Your task to perform on an android device: Go to Google maps Image 0: 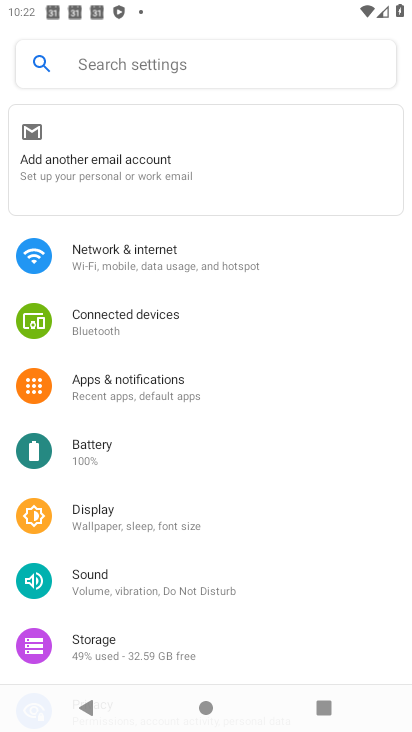
Step 0: press home button
Your task to perform on an android device: Go to Google maps Image 1: 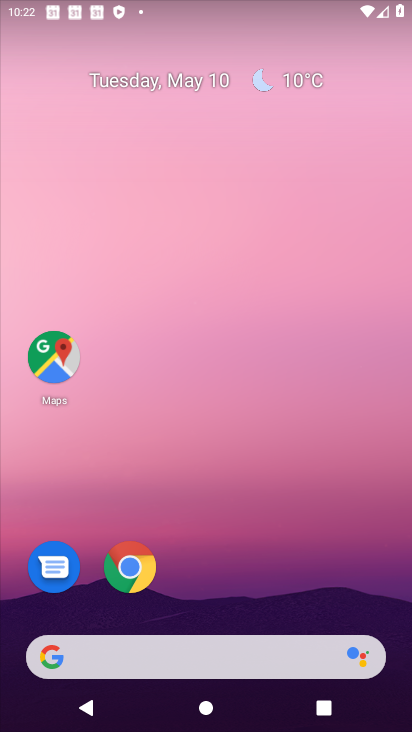
Step 1: drag from (315, 666) to (400, 165)
Your task to perform on an android device: Go to Google maps Image 2: 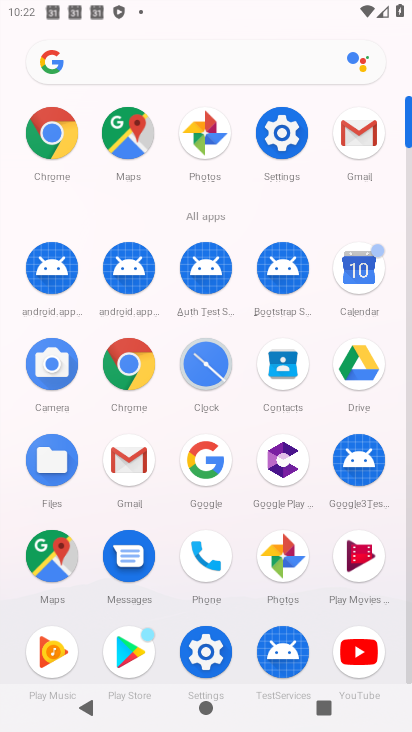
Step 2: click (47, 556)
Your task to perform on an android device: Go to Google maps Image 3: 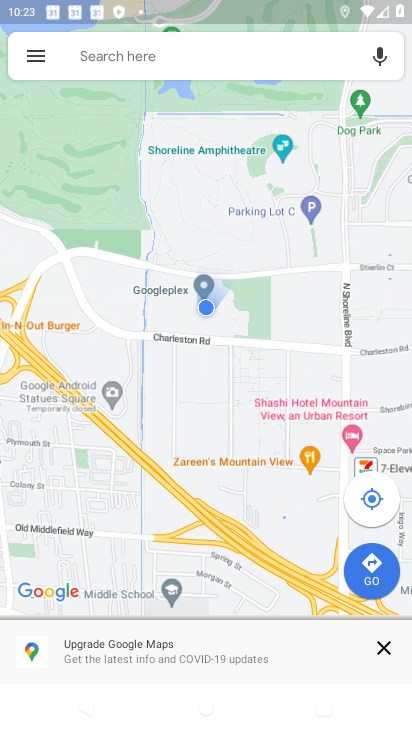
Step 3: task complete